Your task to perform on an android device: Search for the best rated 150-piece drill bit set on Aliexpress. Image 0: 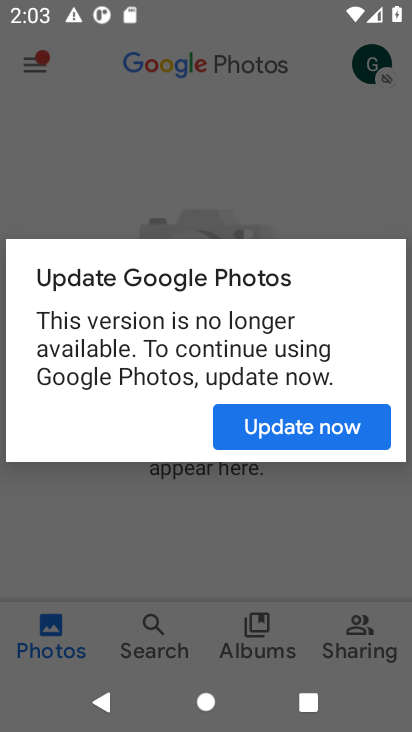
Step 0: press home button
Your task to perform on an android device: Search for the best rated 150-piece drill bit set on Aliexpress. Image 1: 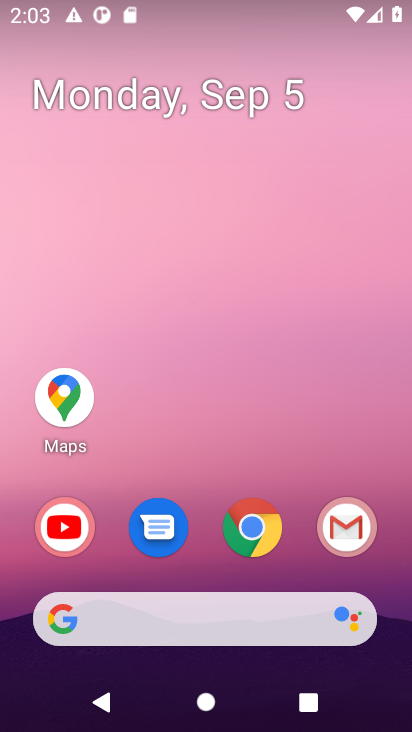
Step 1: click (262, 526)
Your task to perform on an android device: Search for the best rated 150-piece drill bit set on Aliexpress. Image 2: 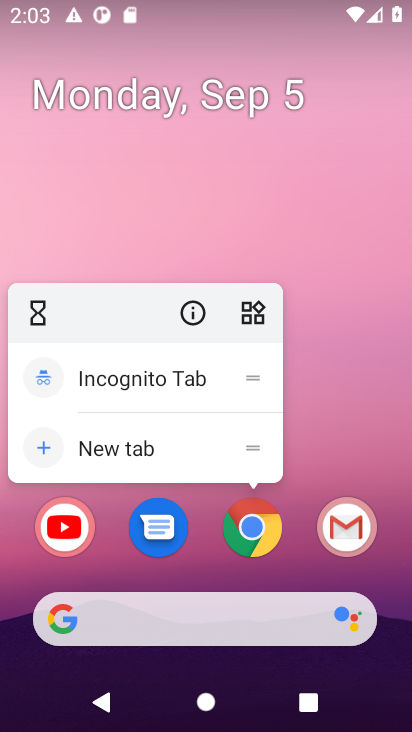
Step 2: click (262, 526)
Your task to perform on an android device: Search for the best rated 150-piece drill bit set on Aliexpress. Image 3: 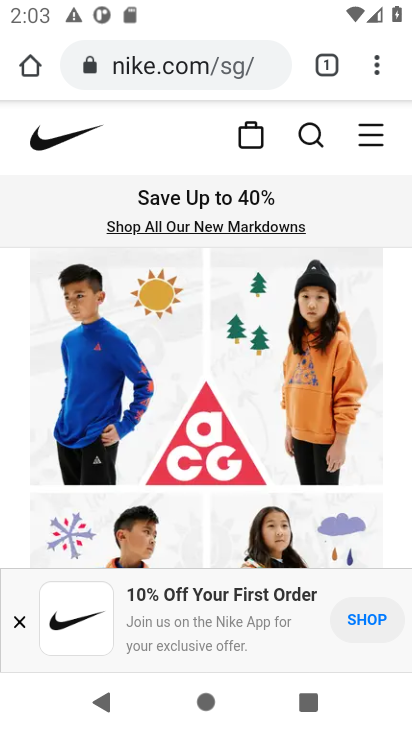
Step 3: click (179, 68)
Your task to perform on an android device: Search for the best rated 150-piece drill bit set on Aliexpress. Image 4: 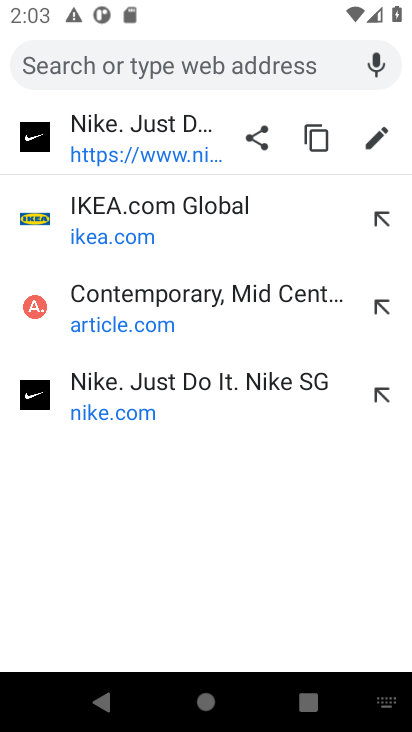
Step 4: type "AliExpress"
Your task to perform on an android device: Search for the best rated 150-piece drill bit set on Aliexpress. Image 5: 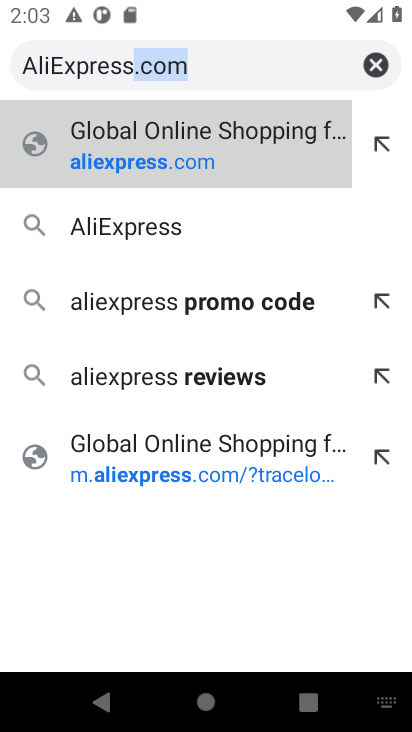
Step 5: click (125, 227)
Your task to perform on an android device: Search for the best rated 150-piece drill bit set on Aliexpress. Image 6: 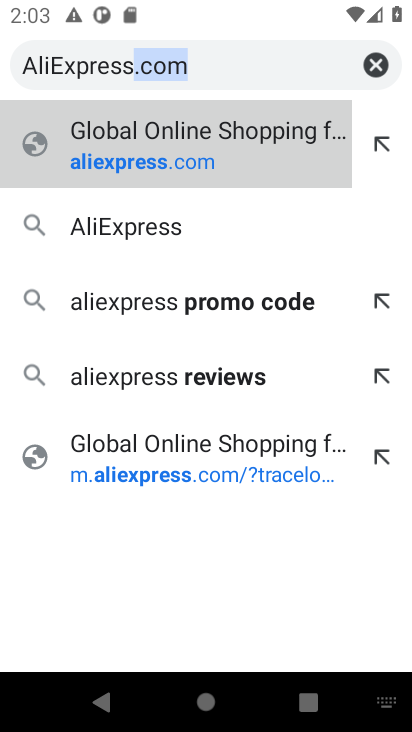
Step 6: click (125, 227)
Your task to perform on an android device: Search for the best rated 150-piece drill bit set on Aliexpress. Image 7: 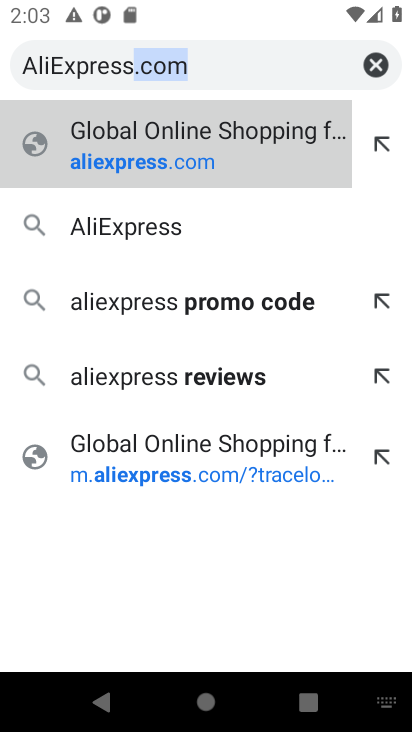
Step 7: click (125, 227)
Your task to perform on an android device: Search for the best rated 150-piece drill bit set on Aliexpress. Image 8: 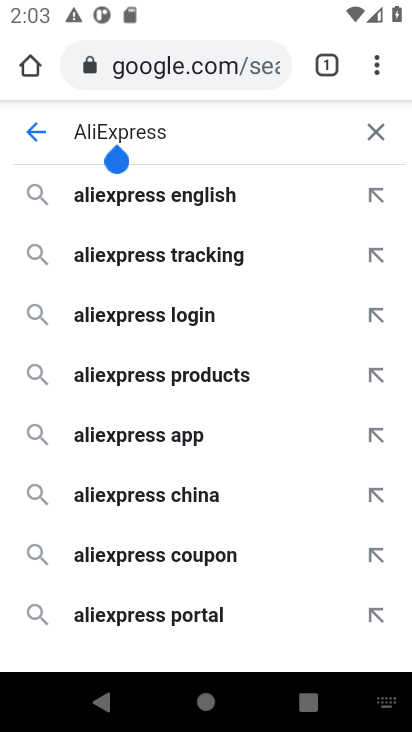
Step 8: click (176, 441)
Your task to perform on an android device: Search for the best rated 150-piece drill bit set on Aliexpress. Image 9: 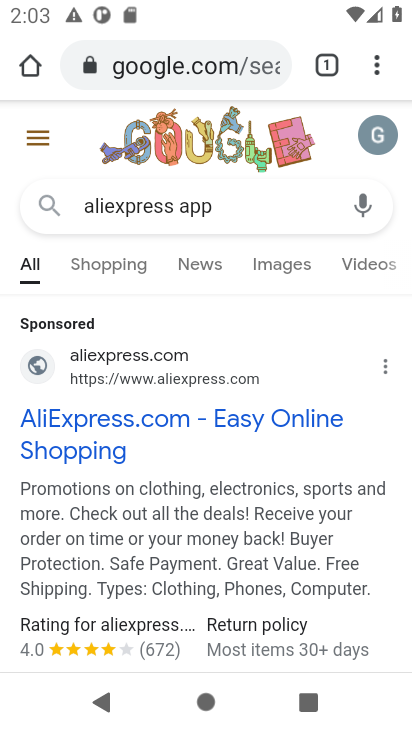
Step 9: click (176, 441)
Your task to perform on an android device: Search for the best rated 150-piece drill bit set on Aliexpress. Image 10: 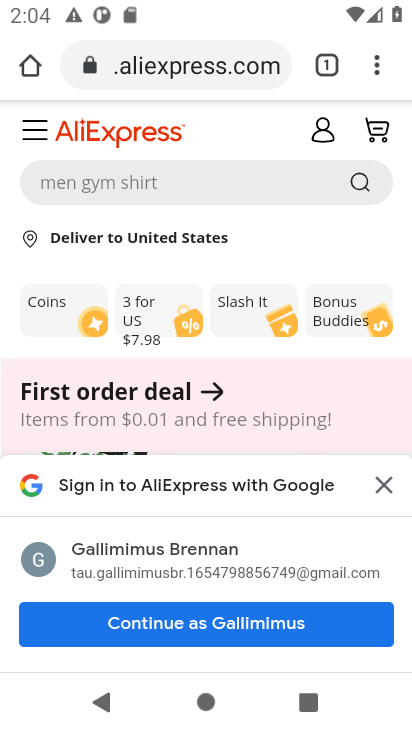
Step 10: click (389, 486)
Your task to perform on an android device: Search for the best rated 150-piece drill bit set on Aliexpress. Image 11: 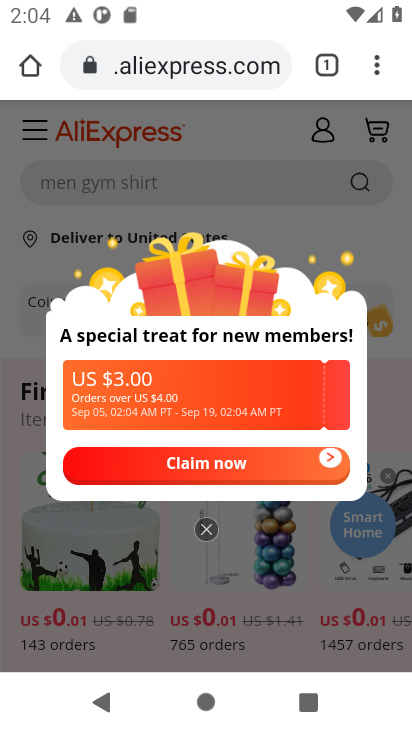
Step 11: click (389, 486)
Your task to perform on an android device: Search for the best rated 150-piece drill bit set on Aliexpress. Image 12: 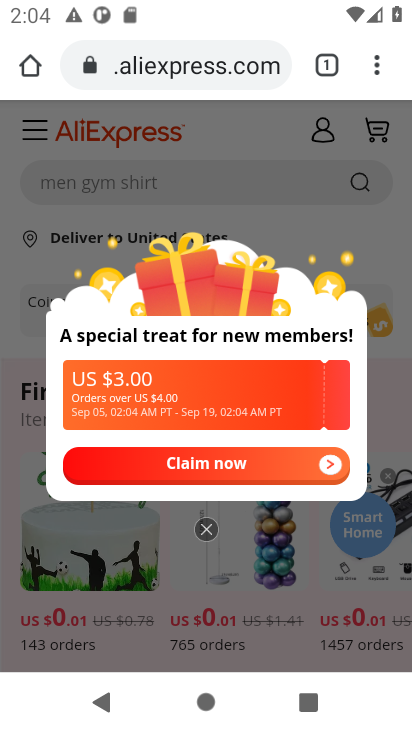
Step 12: click (332, 453)
Your task to perform on an android device: Search for the best rated 150-piece drill bit set on Aliexpress. Image 13: 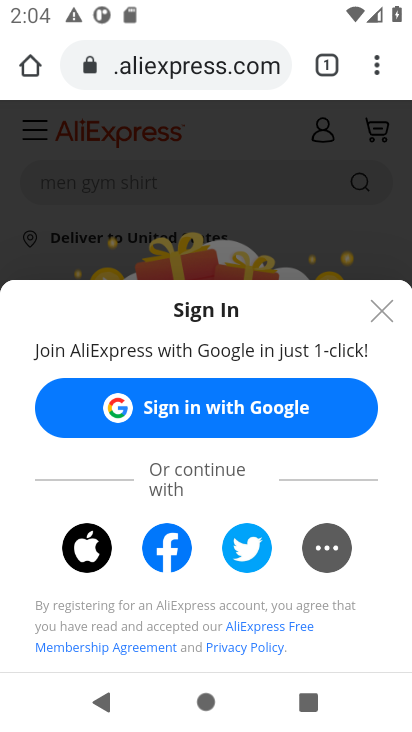
Step 13: click (383, 305)
Your task to perform on an android device: Search for the best rated 150-piece drill bit set on Aliexpress. Image 14: 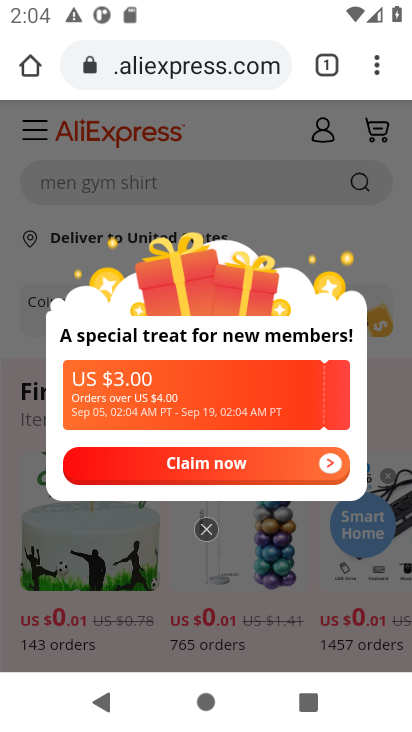
Step 14: click (321, 459)
Your task to perform on an android device: Search for the best rated 150-piece drill bit set on Aliexpress. Image 15: 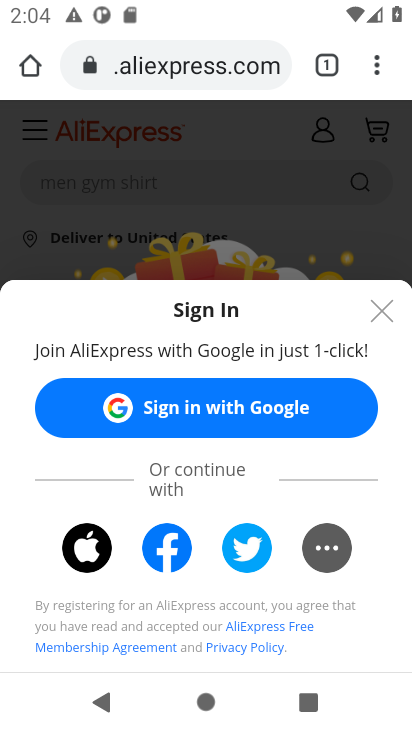
Step 15: click (377, 309)
Your task to perform on an android device: Search for the best rated 150-piece drill bit set on Aliexpress. Image 16: 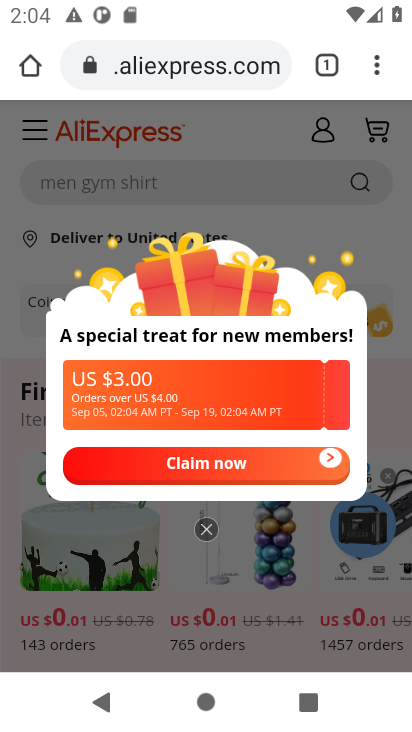
Step 16: press back button
Your task to perform on an android device: Search for the best rated 150-piece drill bit set on Aliexpress. Image 17: 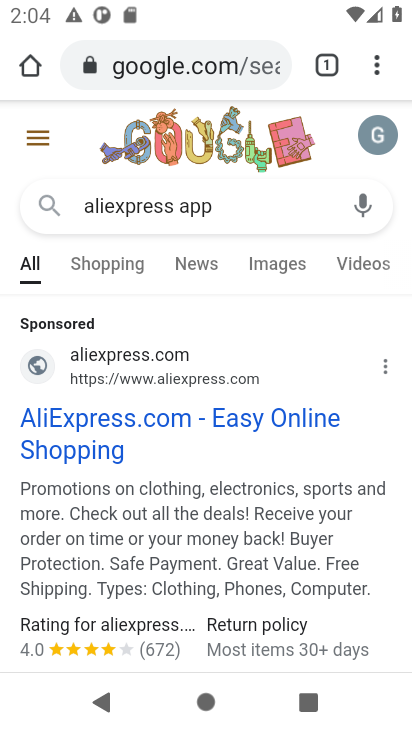
Step 17: click (35, 428)
Your task to perform on an android device: Search for the best rated 150-piece drill bit set on Aliexpress. Image 18: 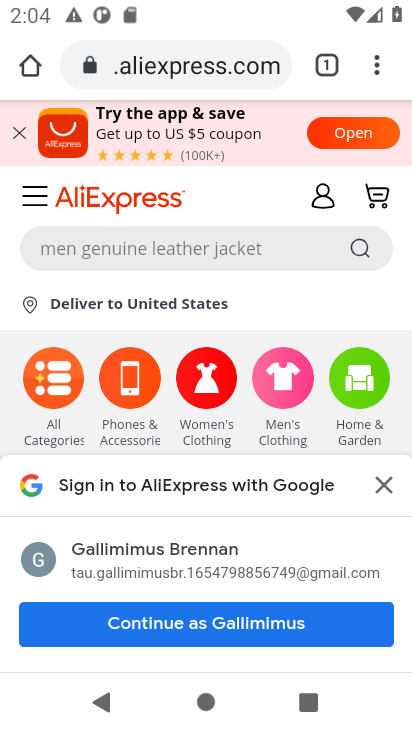
Step 18: click (109, 240)
Your task to perform on an android device: Search for the best rated 150-piece drill bit set on Aliexpress. Image 19: 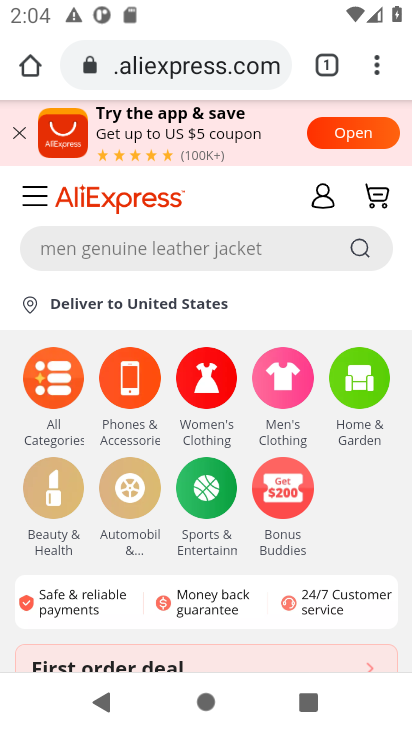
Step 19: click (233, 251)
Your task to perform on an android device: Search for the best rated 150-piece drill bit set on Aliexpress. Image 20: 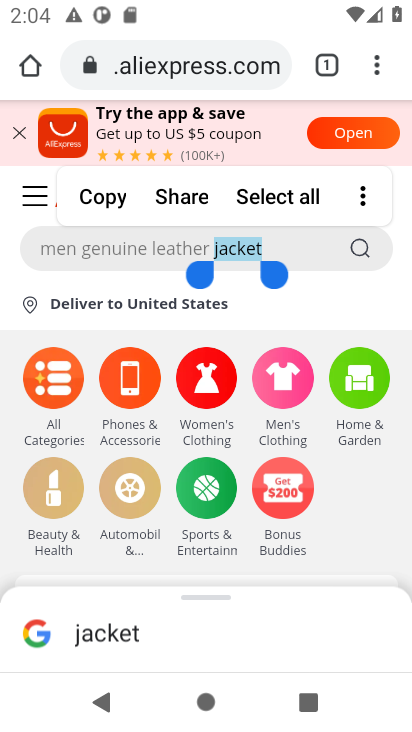
Step 20: click (117, 256)
Your task to perform on an android device: Search for the best rated 150-piece drill bit set on Aliexpress. Image 21: 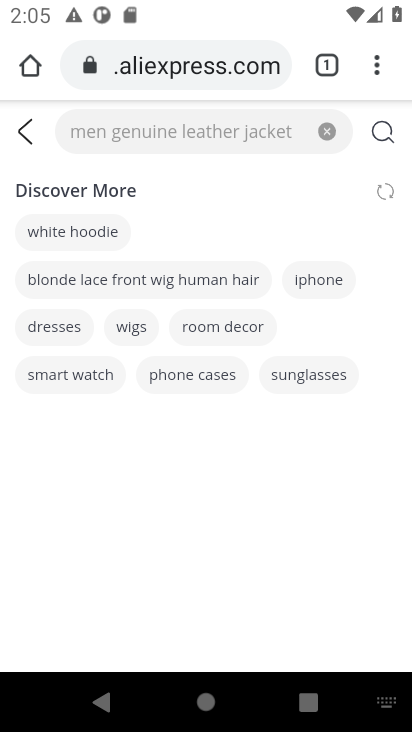
Step 21: type " the best rated 150-piece drill bit set"
Your task to perform on an android device: Search for the best rated 150-piece drill bit set on Aliexpress. Image 22: 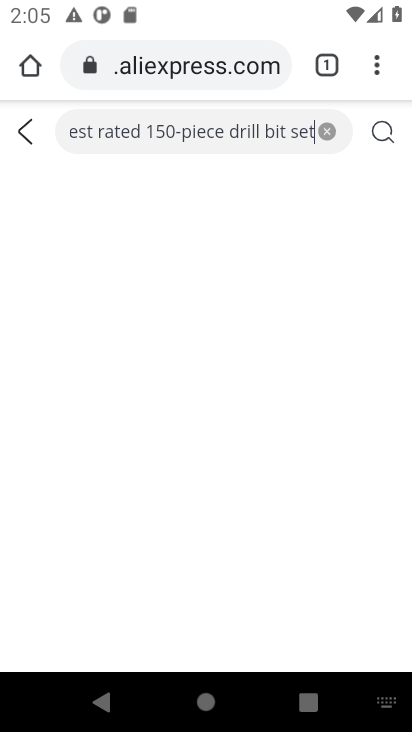
Step 22: click (386, 130)
Your task to perform on an android device: Search for the best rated 150-piece drill bit set on Aliexpress. Image 23: 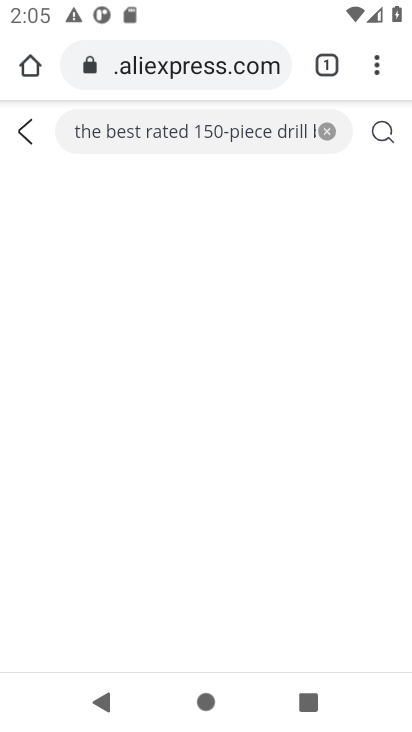
Step 23: click (373, 126)
Your task to perform on an android device: Search for the best rated 150-piece drill bit set on Aliexpress. Image 24: 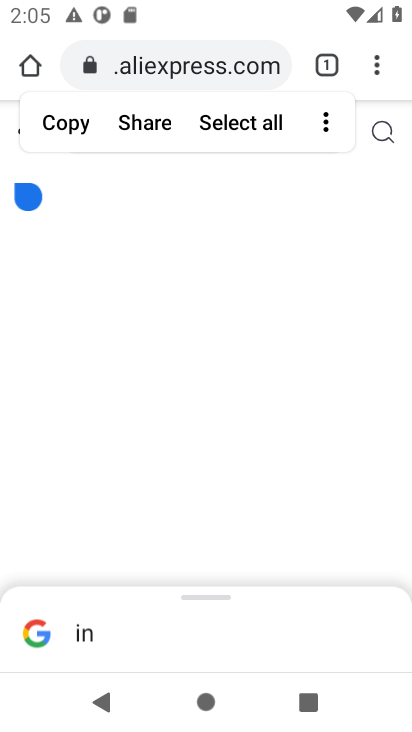
Step 24: click (373, 126)
Your task to perform on an android device: Search for the best rated 150-piece drill bit set on Aliexpress. Image 25: 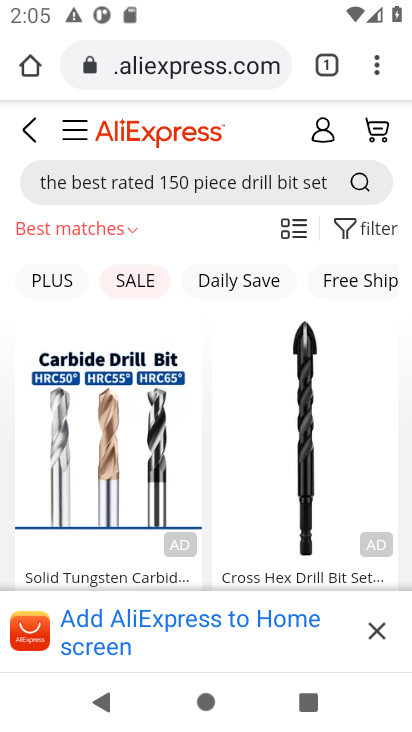
Step 25: task complete